Your task to perform on an android device: Go to ESPN.com Image 0: 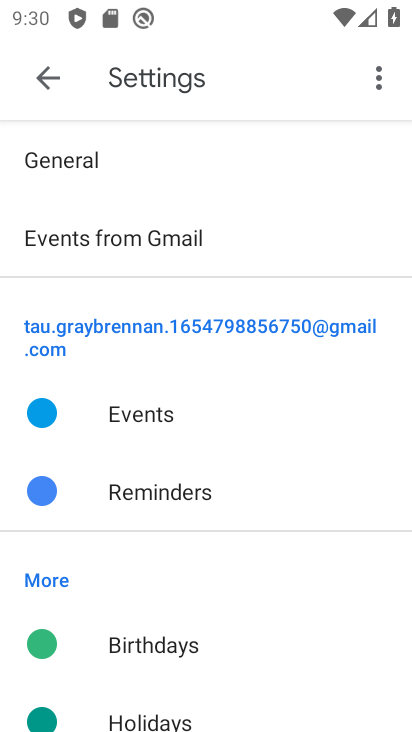
Step 0: press home button
Your task to perform on an android device: Go to ESPN.com Image 1: 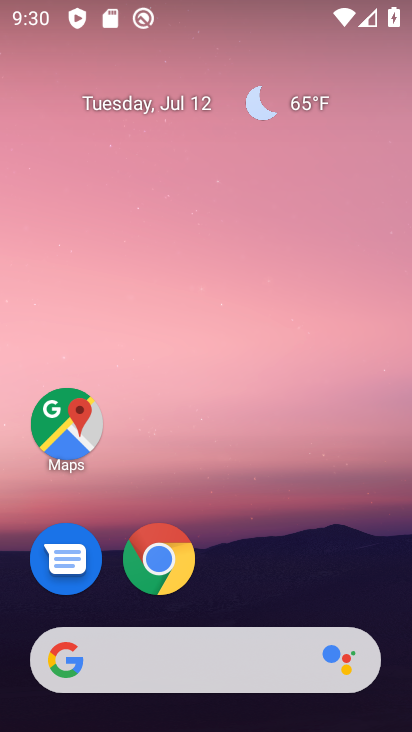
Step 1: drag from (358, 552) to (370, 87)
Your task to perform on an android device: Go to ESPN.com Image 2: 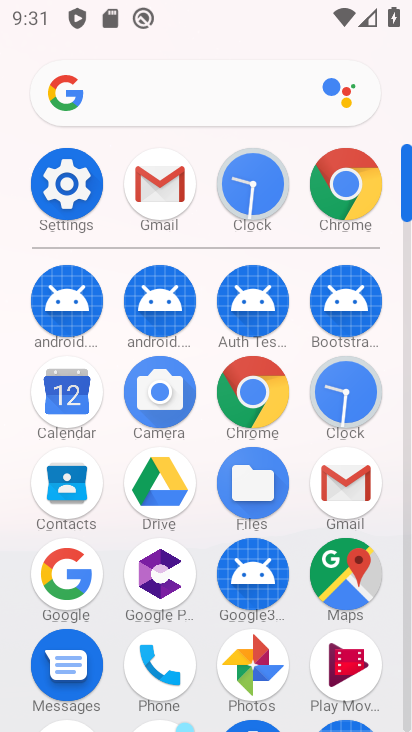
Step 2: click (261, 384)
Your task to perform on an android device: Go to ESPN.com Image 3: 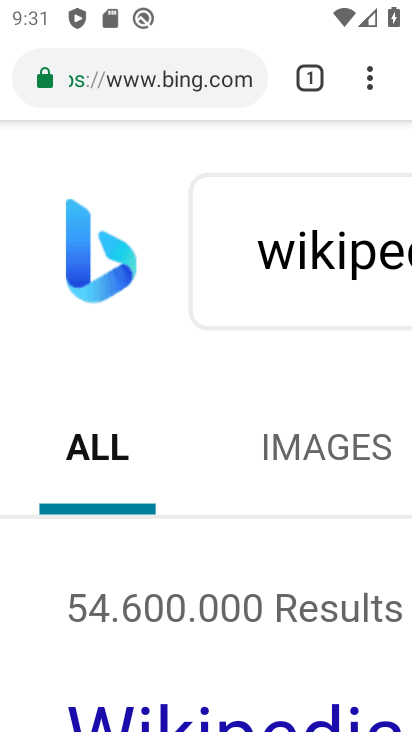
Step 3: click (203, 86)
Your task to perform on an android device: Go to ESPN.com Image 4: 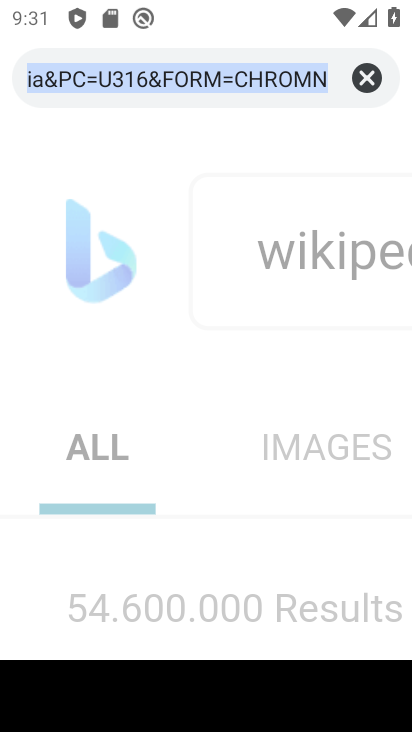
Step 4: type "espn.com"
Your task to perform on an android device: Go to ESPN.com Image 5: 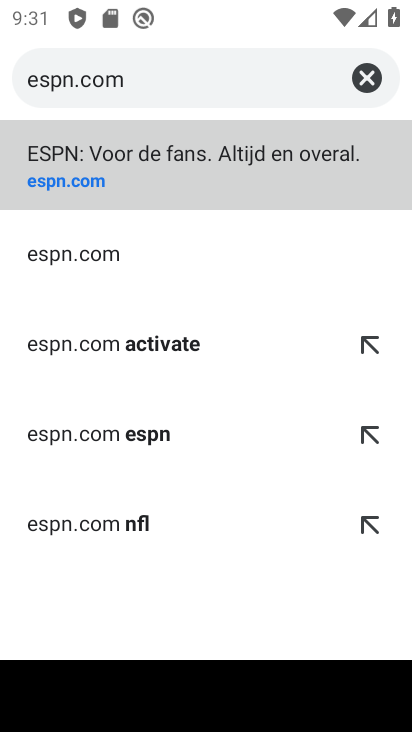
Step 5: click (310, 171)
Your task to perform on an android device: Go to ESPN.com Image 6: 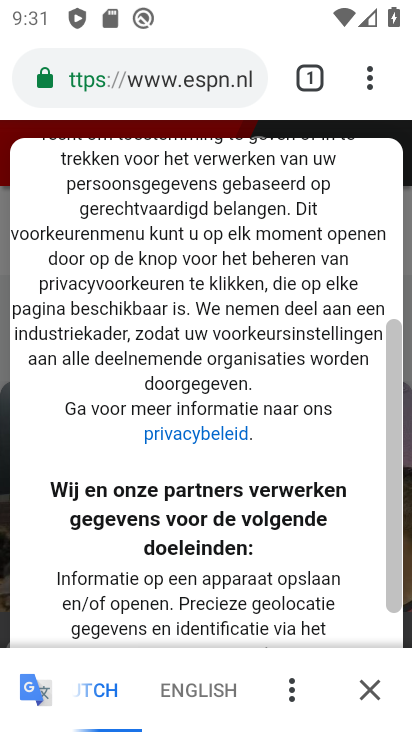
Step 6: task complete